Your task to perform on an android device: Open Reddit.com Image 0: 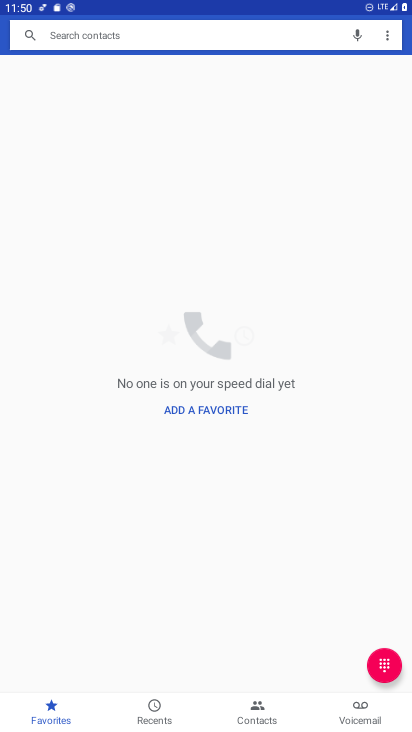
Step 0: press home button
Your task to perform on an android device: Open Reddit.com Image 1: 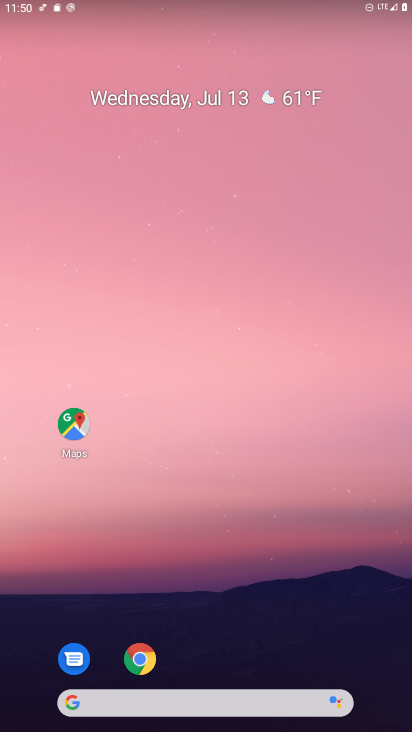
Step 1: click (141, 658)
Your task to perform on an android device: Open Reddit.com Image 2: 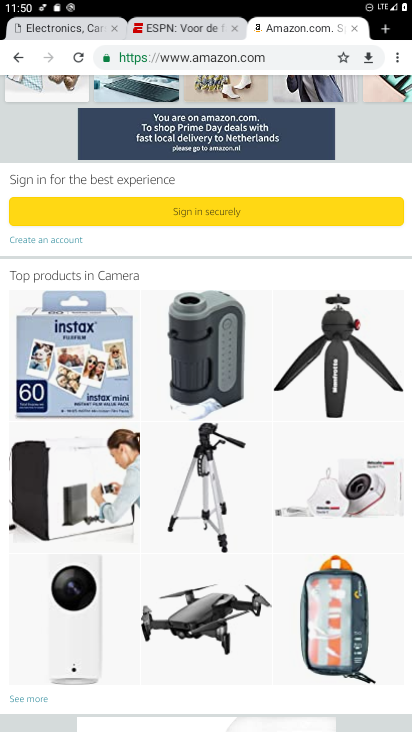
Step 2: click (285, 53)
Your task to perform on an android device: Open Reddit.com Image 3: 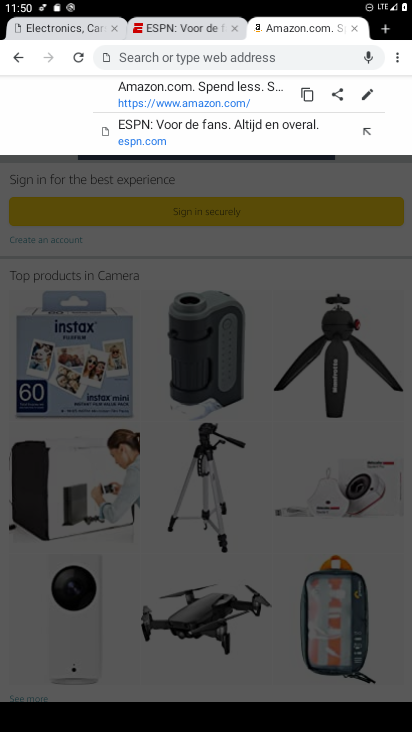
Step 3: type "reddit.com"
Your task to perform on an android device: Open Reddit.com Image 4: 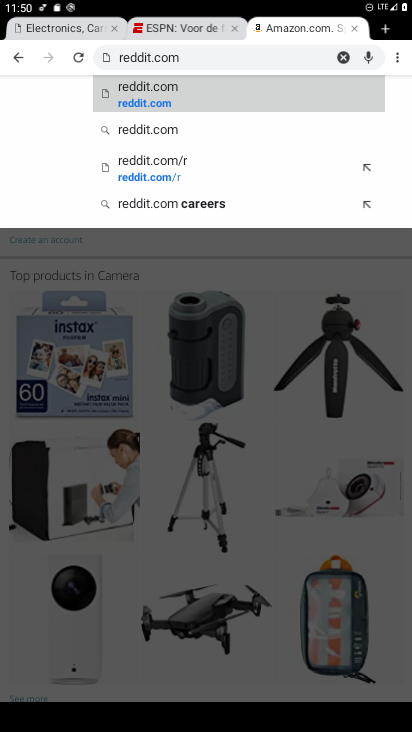
Step 4: click (149, 105)
Your task to perform on an android device: Open Reddit.com Image 5: 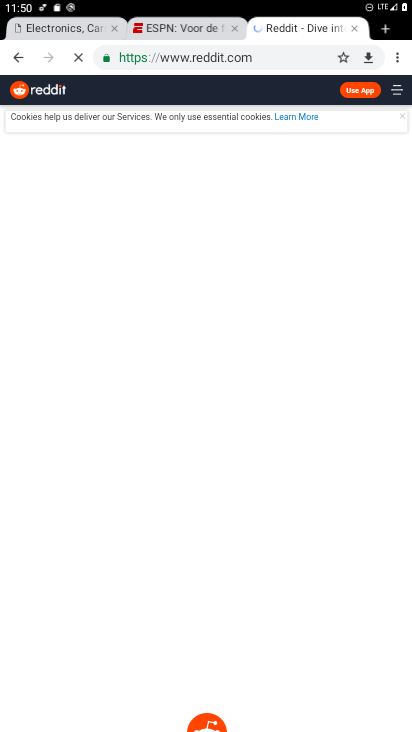
Step 5: task complete